Your task to perform on an android device: find which apps use the phone's location Image 0: 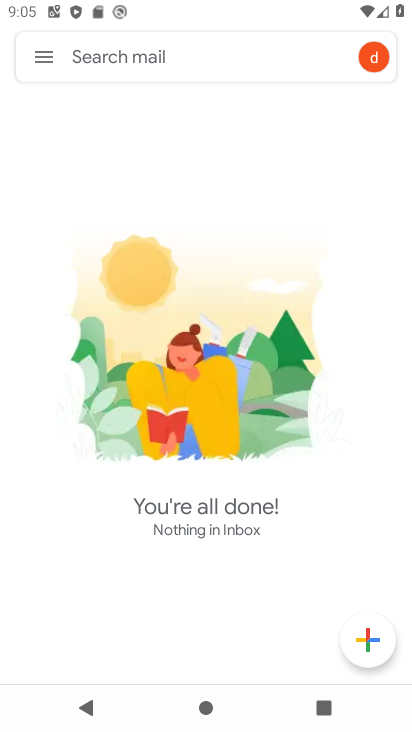
Step 0: press back button
Your task to perform on an android device: find which apps use the phone's location Image 1: 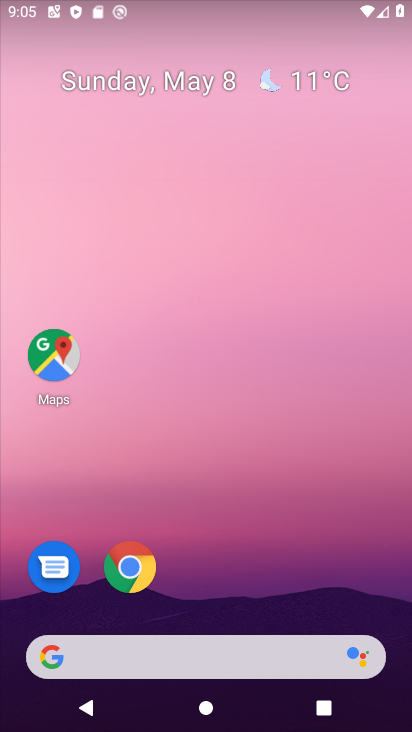
Step 1: drag from (190, 619) to (275, 50)
Your task to perform on an android device: find which apps use the phone's location Image 2: 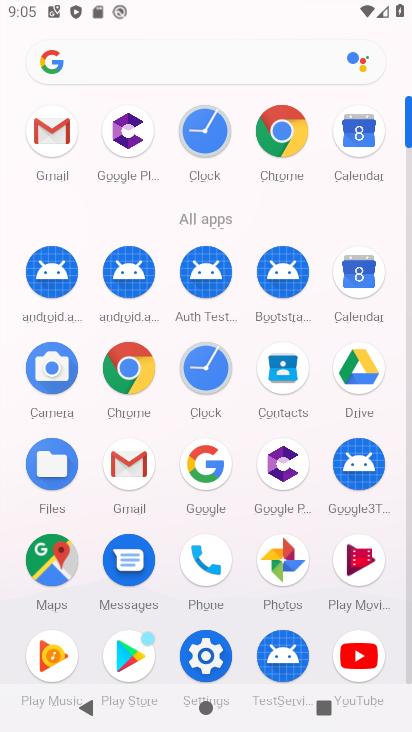
Step 2: click (194, 660)
Your task to perform on an android device: find which apps use the phone's location Image 3: 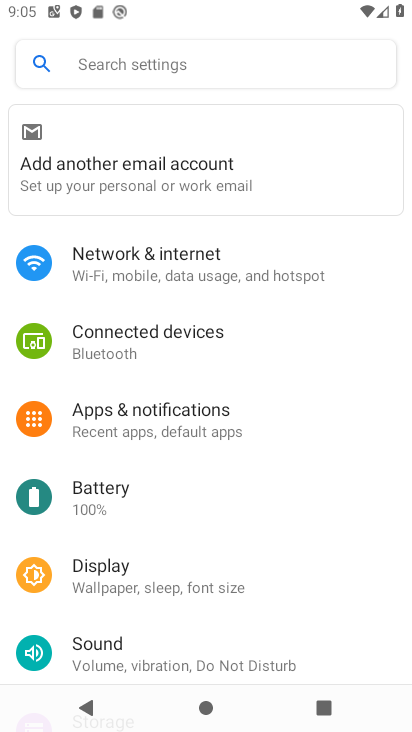
Step 3: drag from (144, 610) to (292, 71)
Your task to perform on an android device: find which apps use the phone's location Image 4: 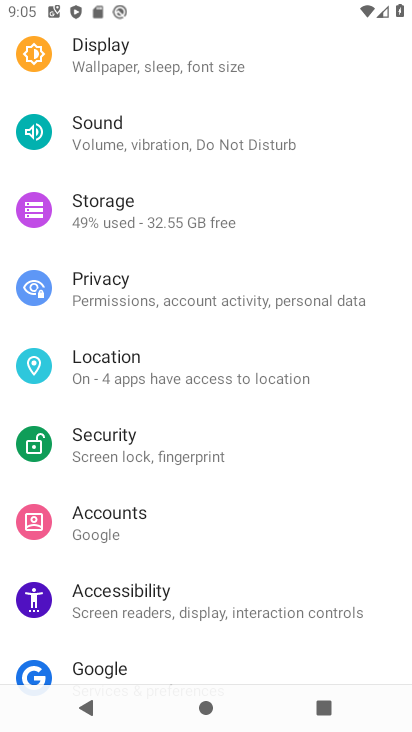
Step 4: click (149, 372)
Your task to perform on an android device: find which apps use the phone's location Image 5: 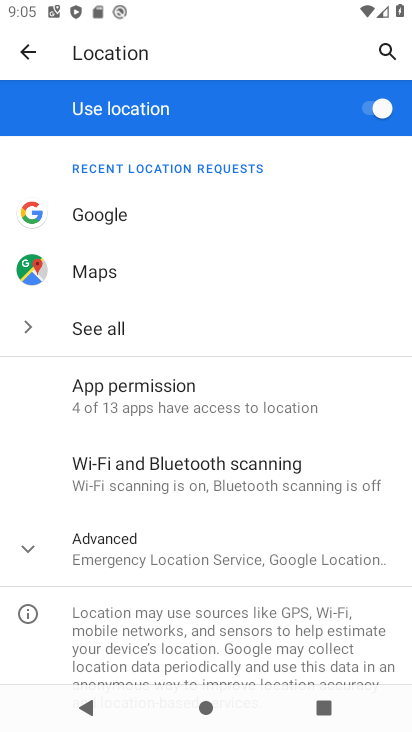
Step 5: click (154, 389)
Your task to perform on an android device: find which apps use the phone's location Image 6: 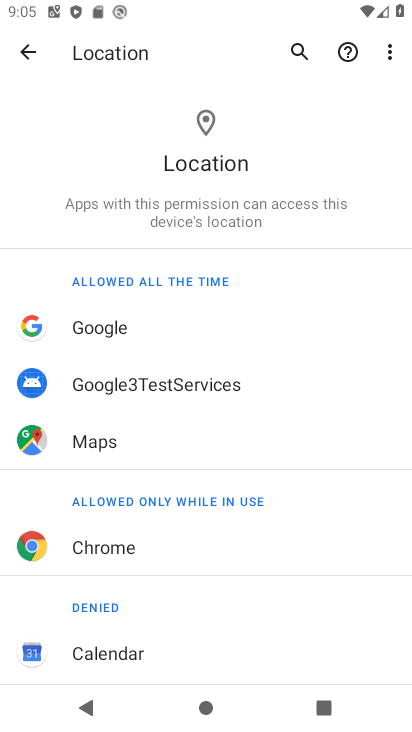
Step 6: task complete